Your task to perform on an android device: turn pop-ups off in chrome Image 0: 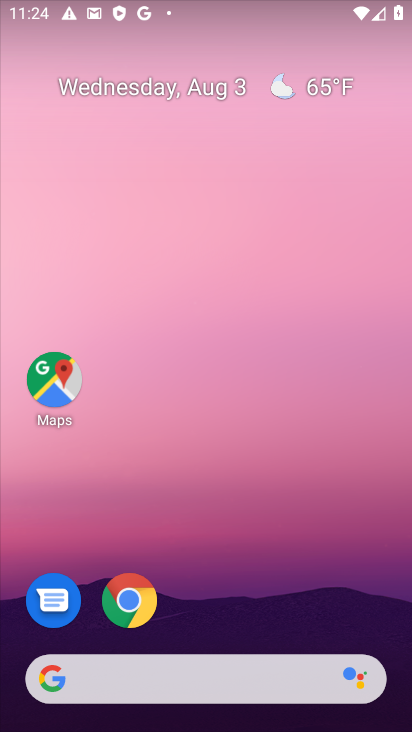
Step 0: click (147, 611)
Your task to perform on an android device: turn pop-ups off in chrome Image 1: 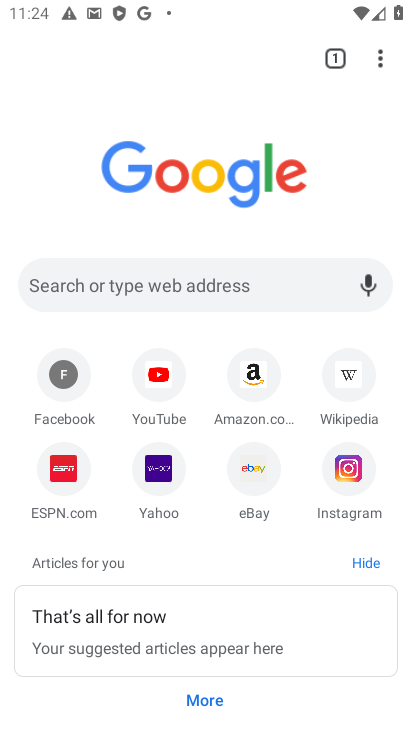
Step 1: click (383, 55)
Your task to perform on an android device: turn pop-ups off in chrome Image 2: 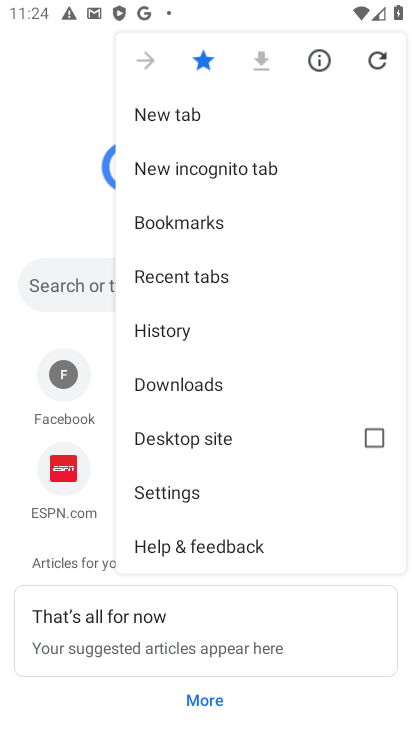
Step 2: click (383, 55)
Your task to perform on an android device: turn pop-ups off in chrome Image 3: 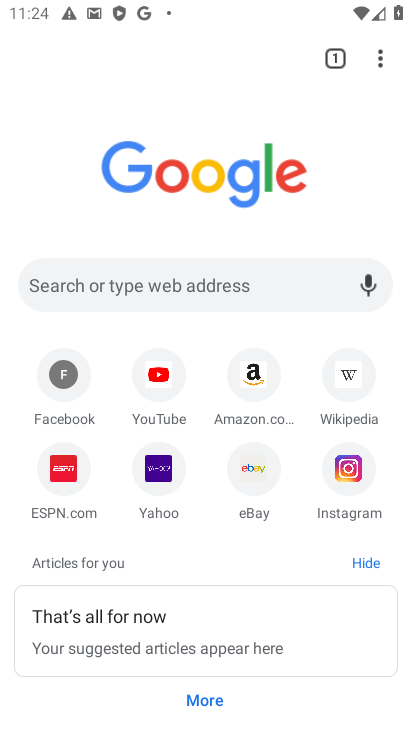
Step 3: click (385, 59)
Your task to perform on an android device: turn pop-ups off in chrome Image 4: 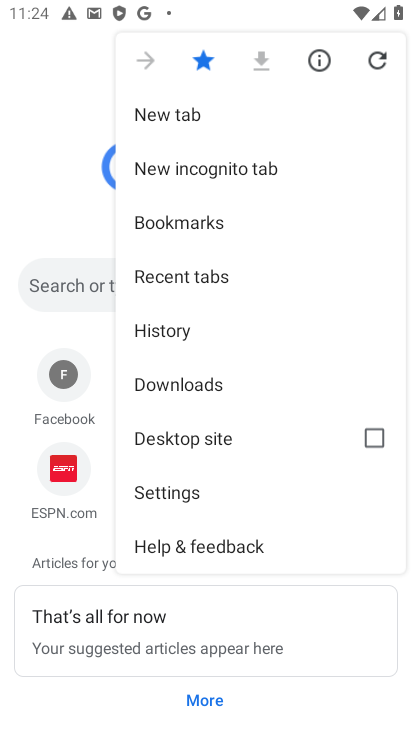
Step 4: click (148, 481)
Your task to perform on an android device: turn pop-ups off in chrome Image 5: 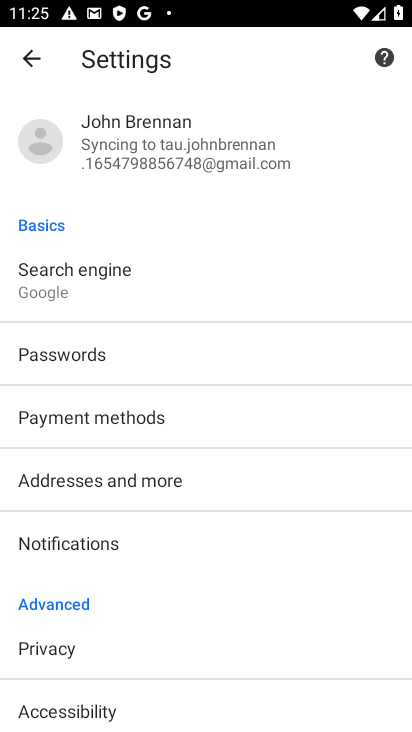
Step 5: drag from (116, 617) to (80, 227)
Your task to perform on an android device: turn pop-ups off in chrome Image 6: 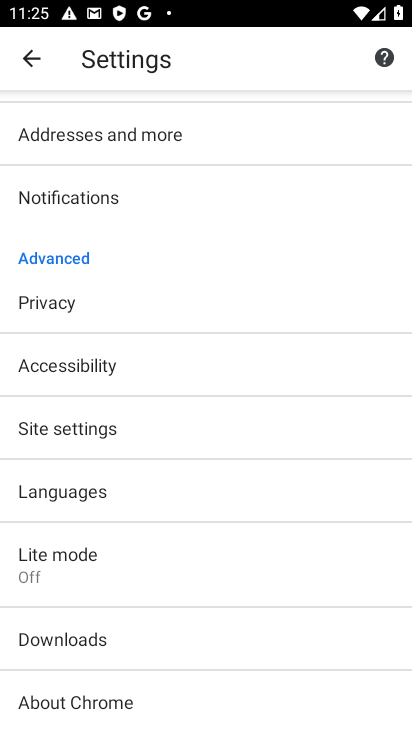
Step 6: click (53, 428)
Your task to perform on an android device: turn pop-ups off in chrome Image 7: 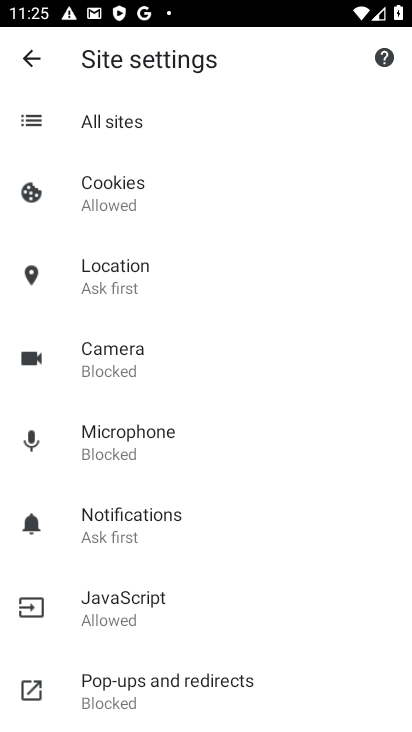
Step 7: click (171, 674)
Your task to perform on an android device: turn pop-ups off in chrome Image 8: 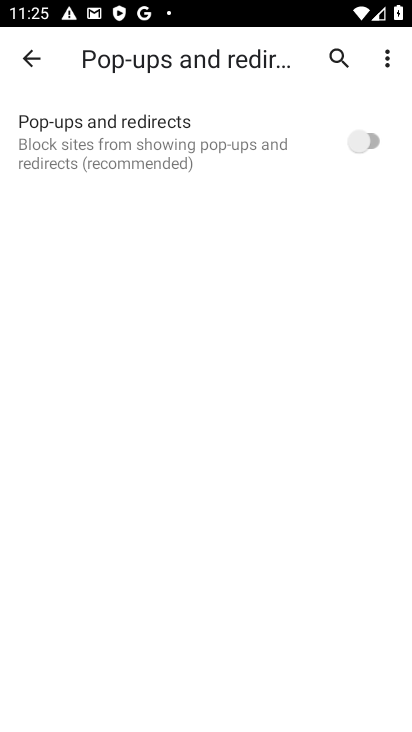
Step 8: task complete